Your task to perform on an android device: allow cookies in the chrome app Image 0: 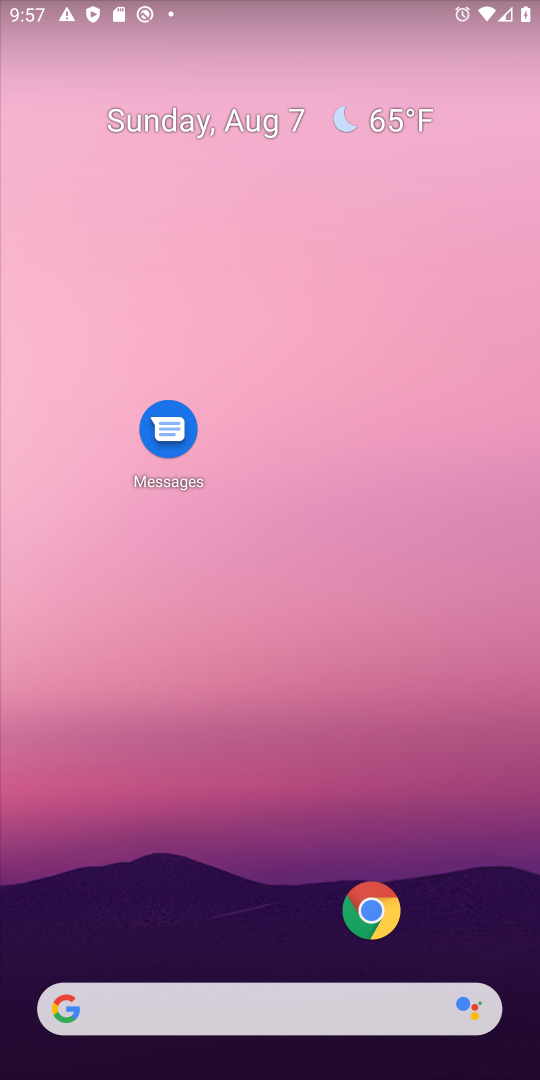
Step 0: click (380, 912)
Your task to perform on an android device: allow cookies in the chrome app Image 1: 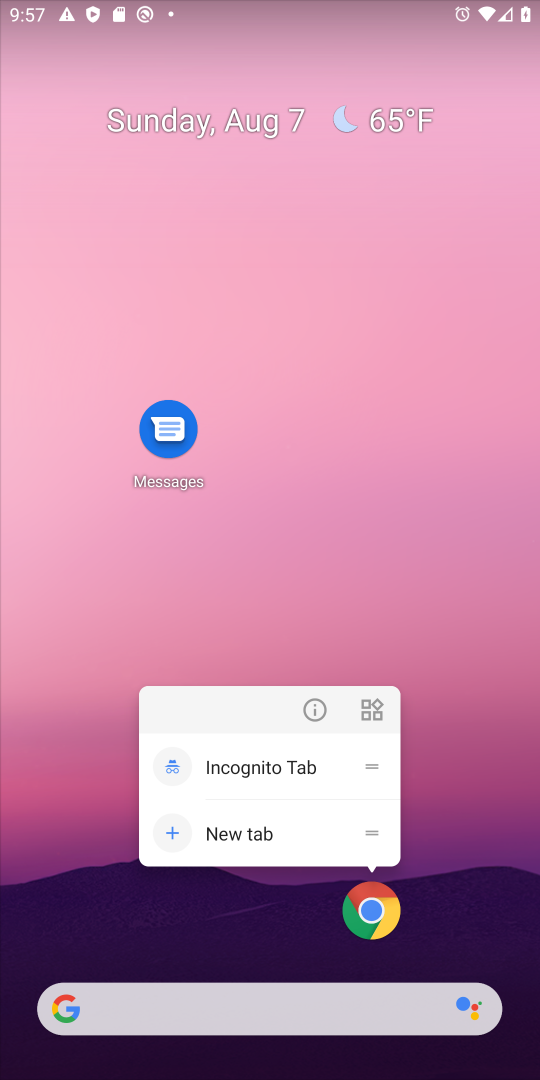
Step 1: click (380, 915)
Your task to perform on an android device: allow cookies in the chrome app Image 2: 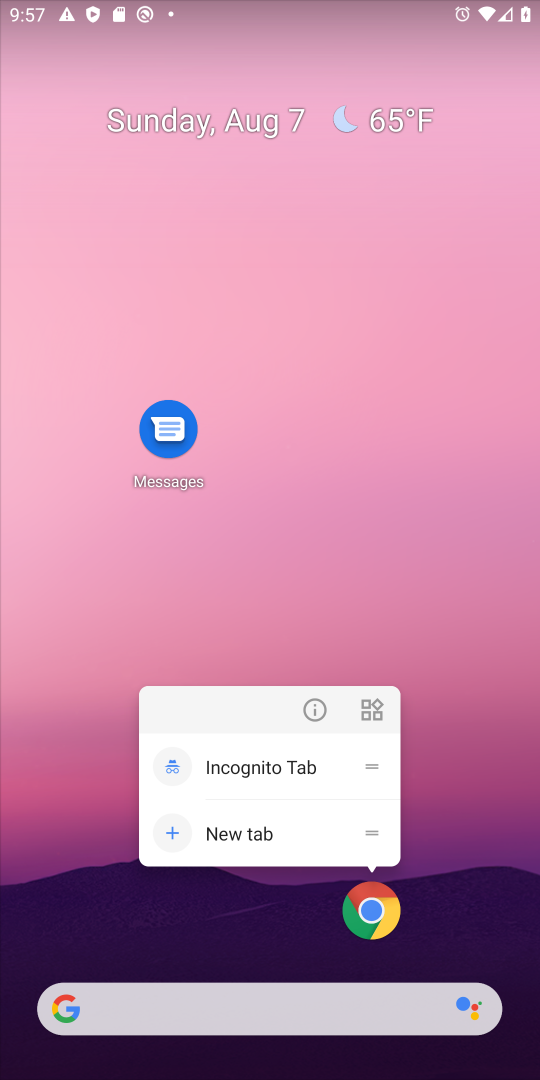
Step 2: click (368, 921)
Your task to perform on an android device: allow cookies in the chrome app Image 3: 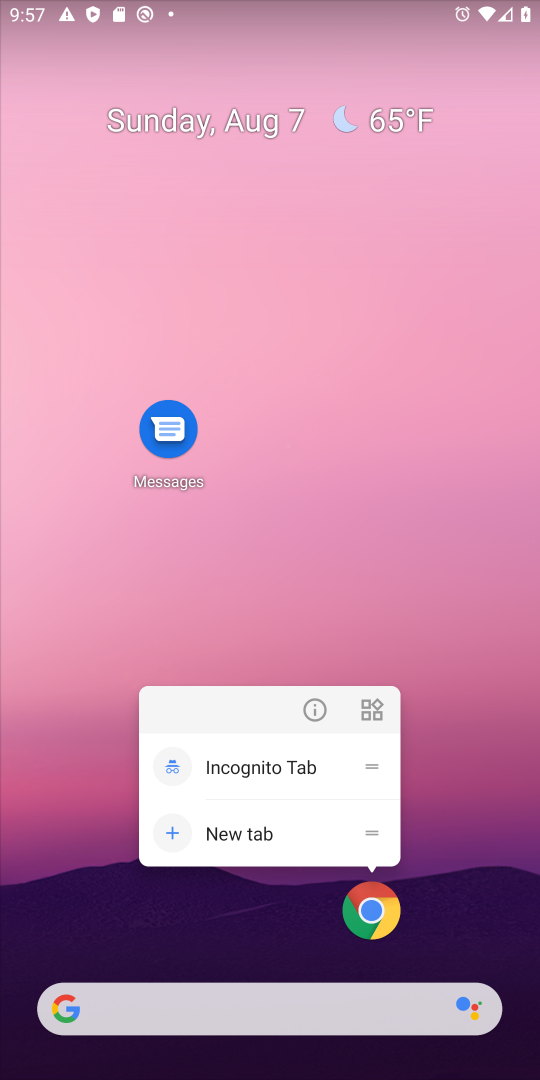
Step 3: click (368, 921)
Your task to perform on an android device: allow cookies in the chrome app Image 4: 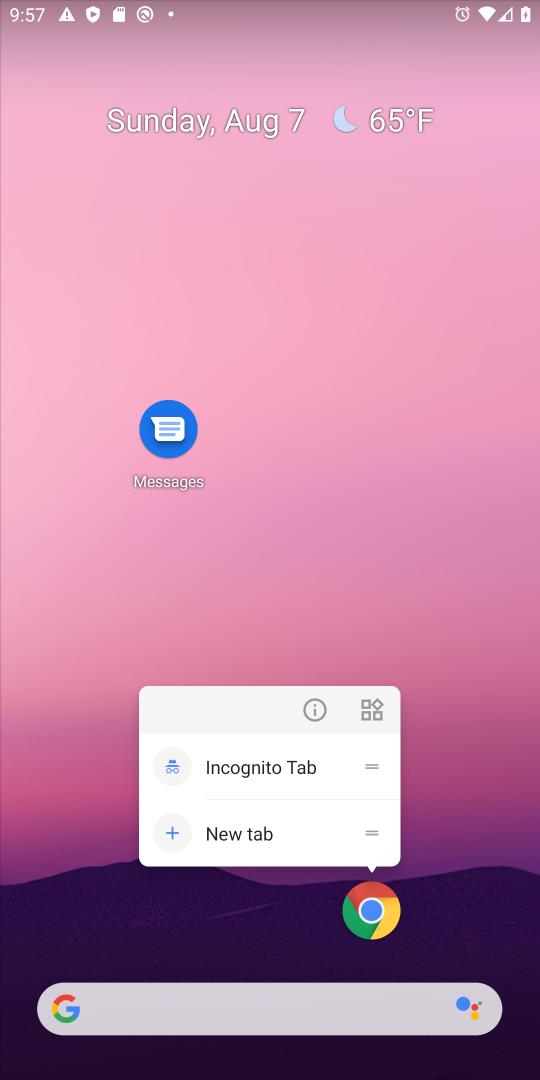
Step 4: click (368, 921)
Your task to perform on an android device: allow cookies in the chrome app Image 5: 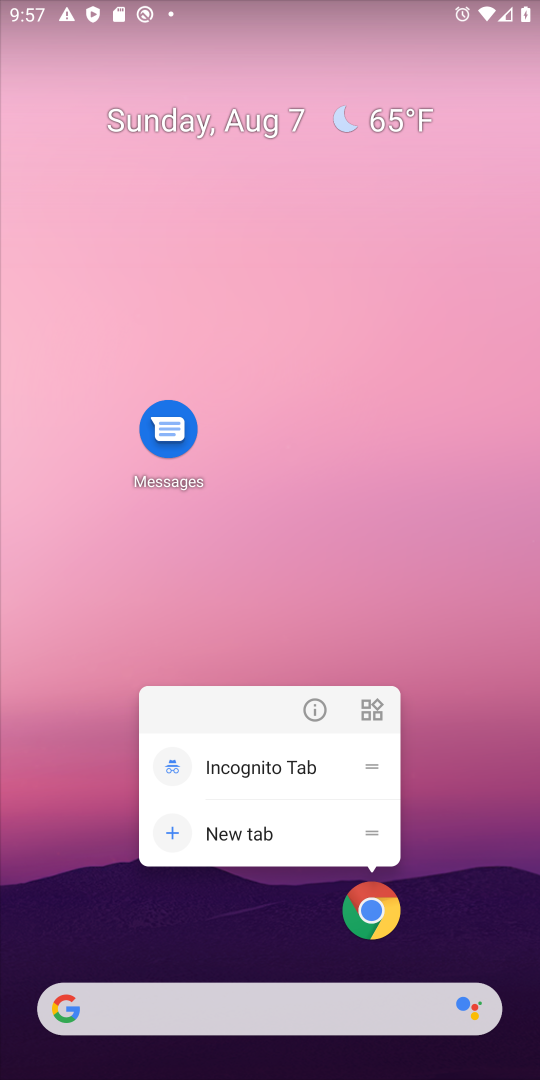
Step 5: click (384, 920)
Your task to perform on an android device: allow cookies in the chrome app Image 6: 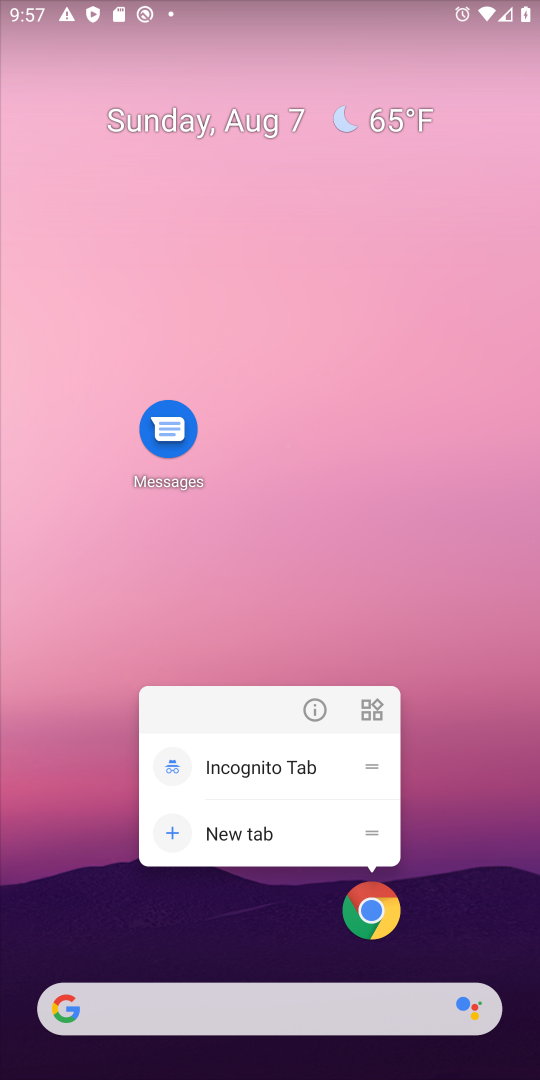
Step 6: click (353, 896)
Your task to perform on an android device: allow cookies in the chrome app Image 7: 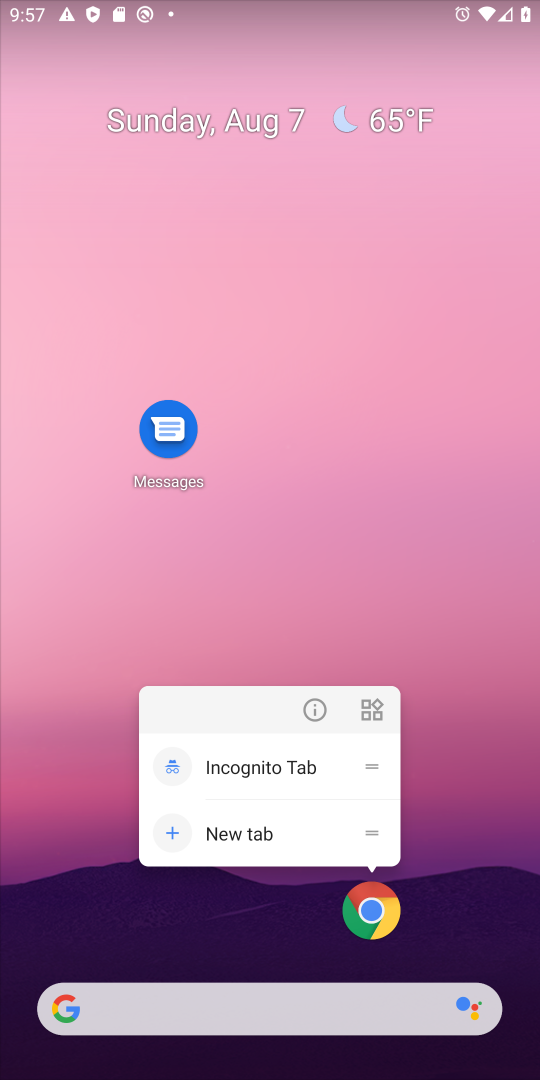
Step 7: click (369, 910)
Your task to perform on an android device: allow cookies in the chrome app Image 8: 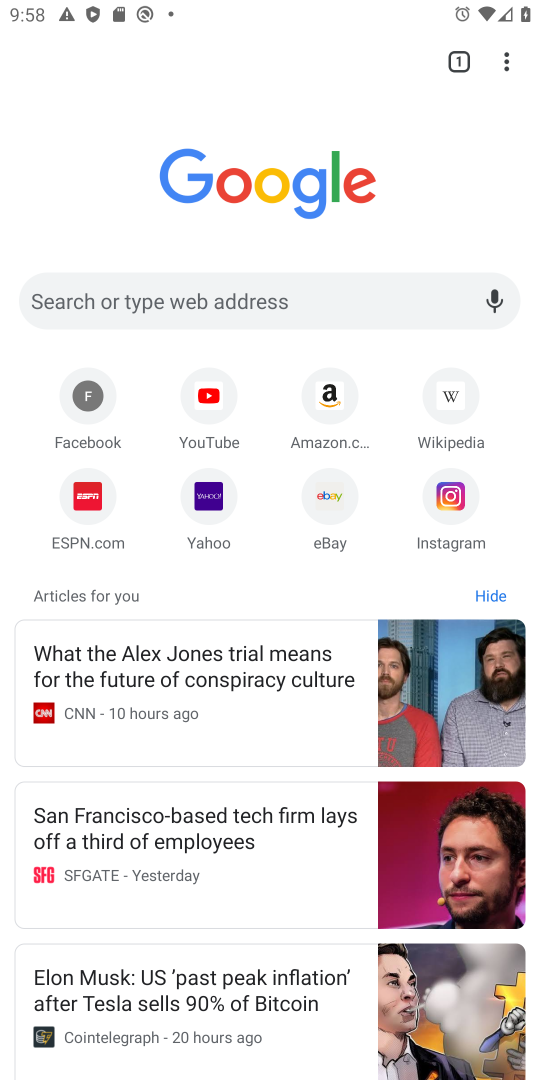
Step 8: click (502, 71)
Your task to perform on an android device: allow cookies in the chrome app Image 9: 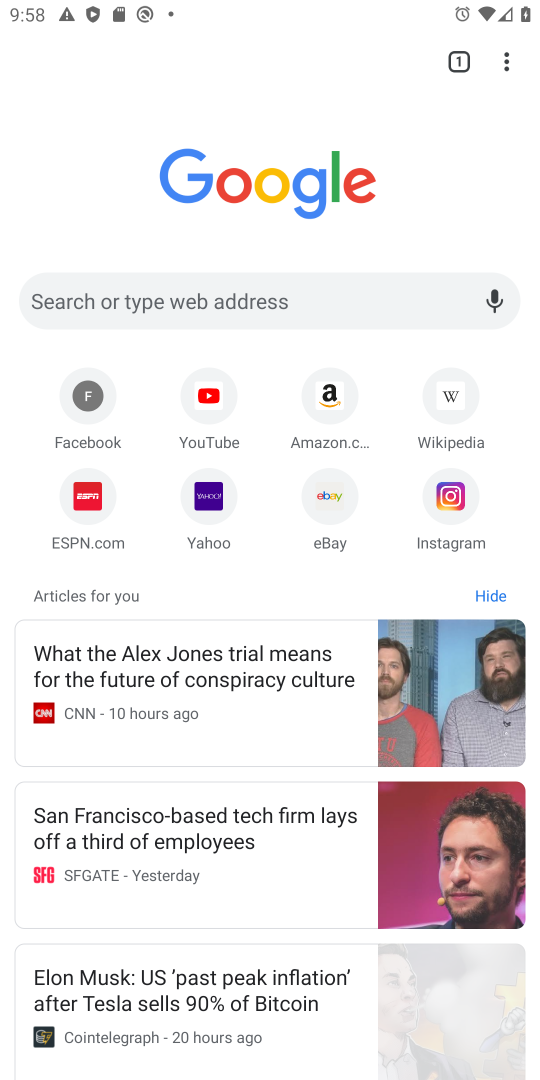
Step 9: click (498, 60)
Your task to perform on an android device: allow cookies in the chrome app Image 10: 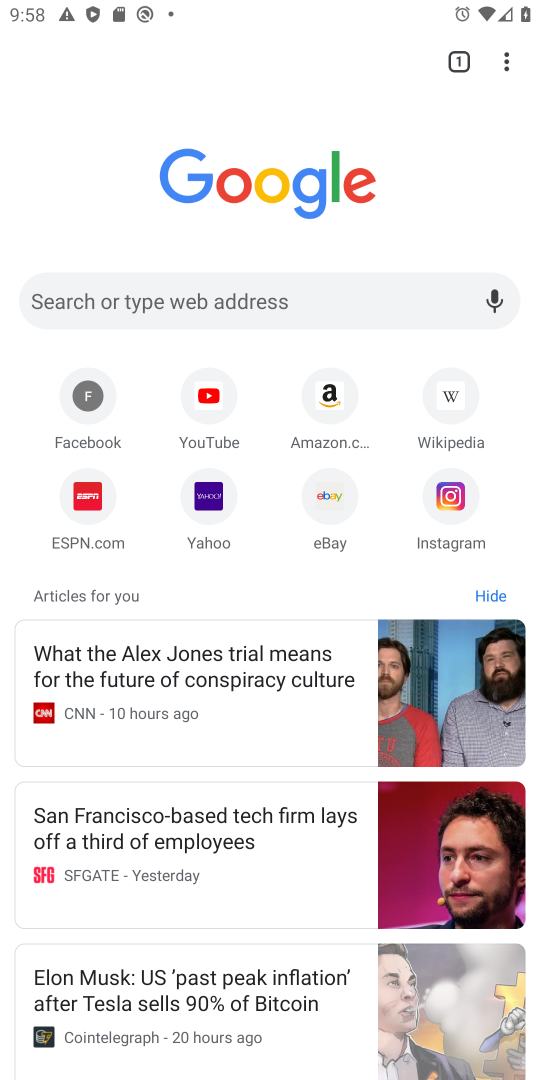
Step 10: click (505, 53)
Your task to perform on an android device: allow cookies in the chrome app Image 11: 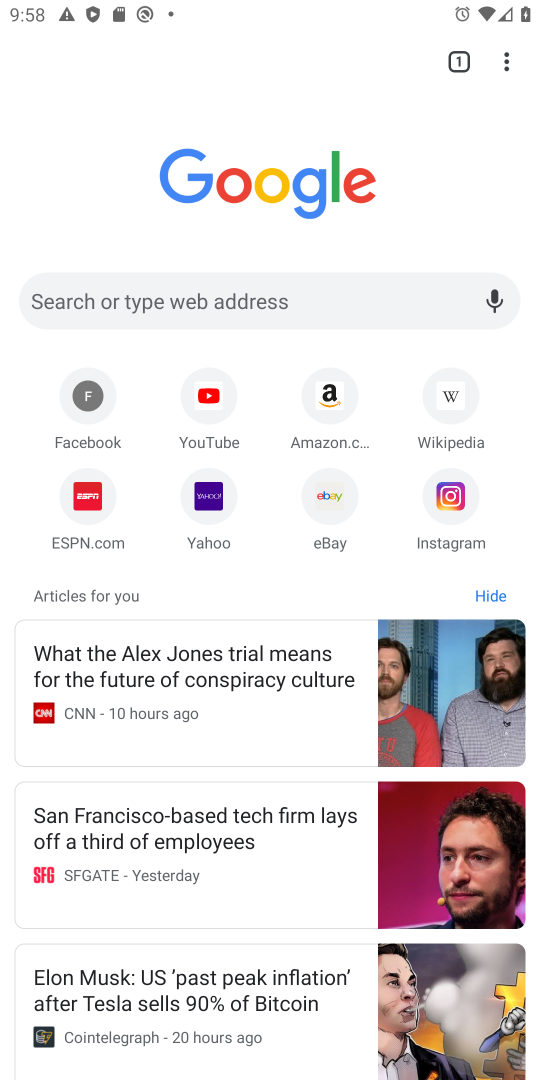
Step 11: click (508, 58)
Your task to perform on an android device: allow cookies in the chrome app Image 12: 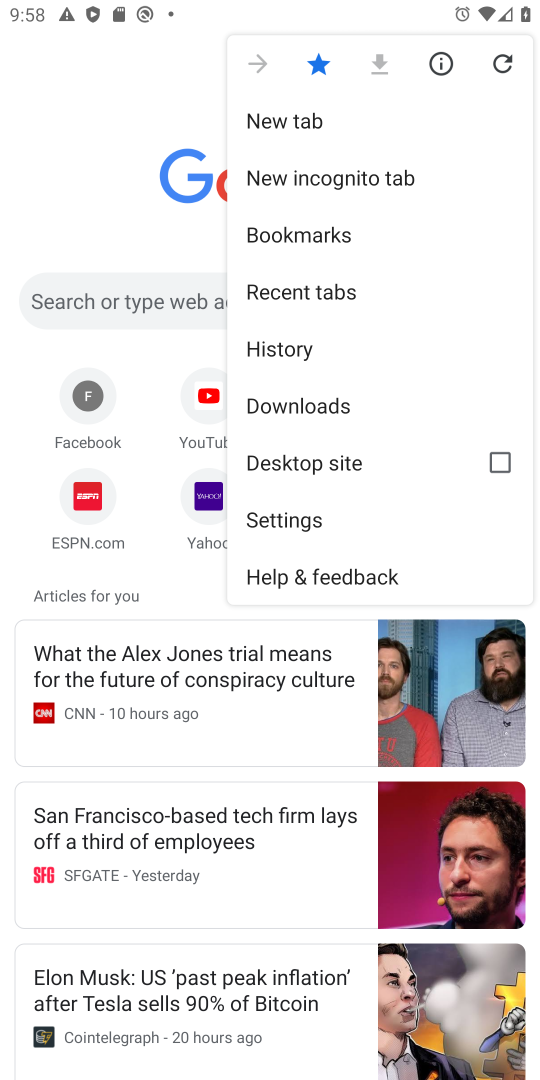
Step 12: click (278, 523)
Your task to perform on an android device: allow cookies in the chrome app Image 13: 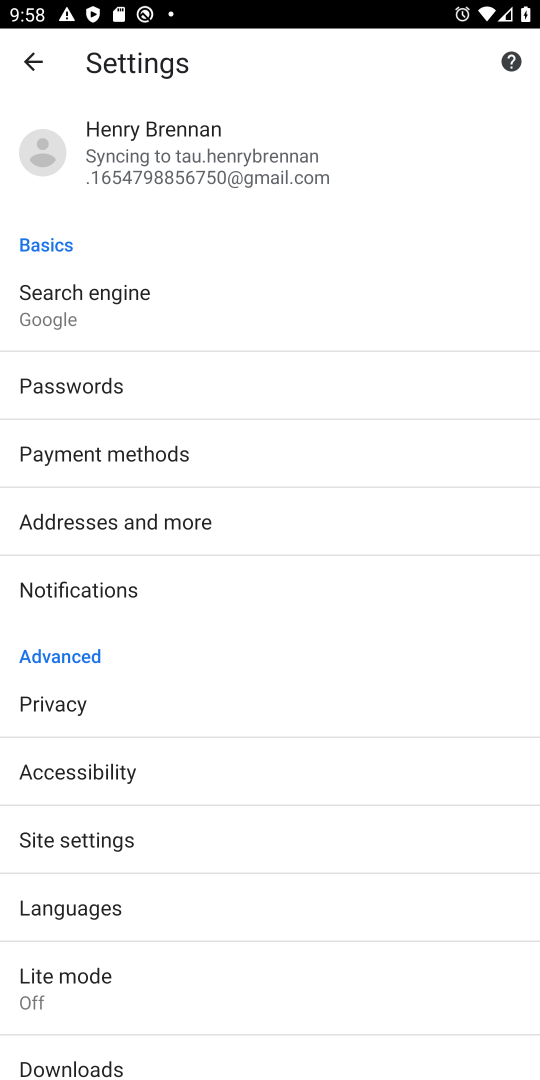
Step 13: click (61, 845)
Your task to perform on an android device: allow cookies in the chrome app Image 14: 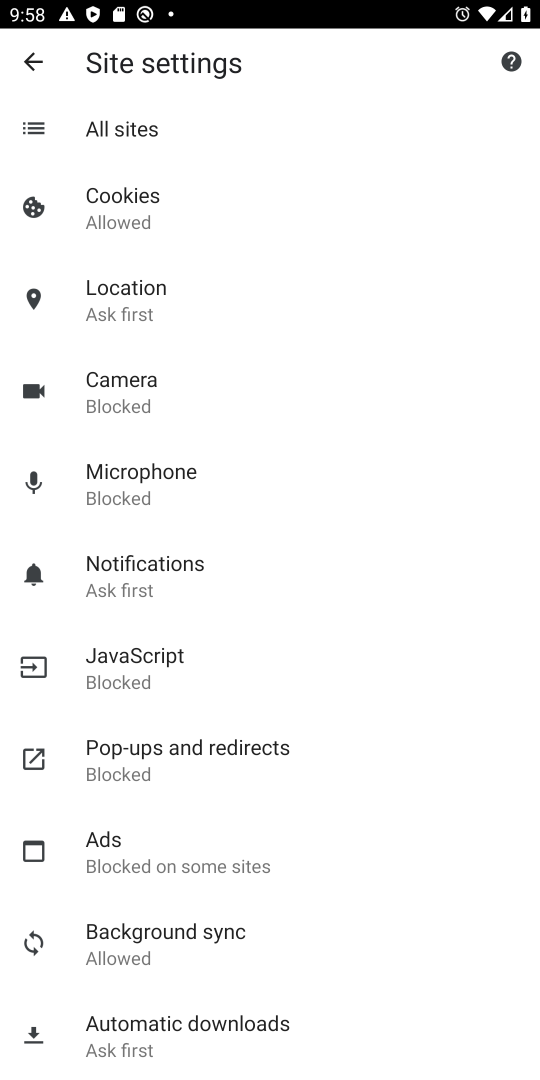
Step 14: click (107, 212)
Your task to perform on an android device: allow cookies in the chrome app Image 15: 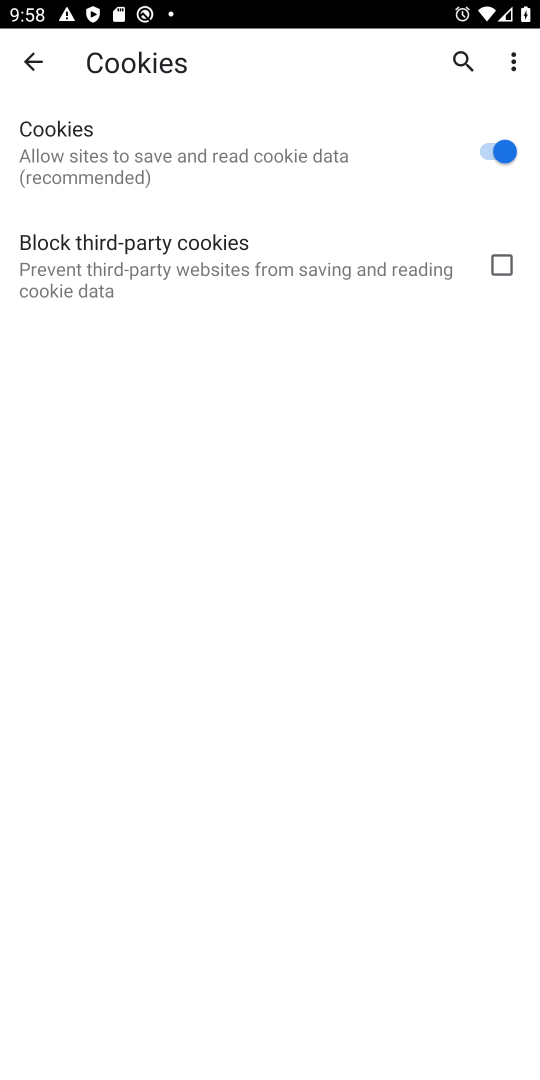
Step 15: task complete